Your task to perform on an android device: Go to wifi settings Image 0: 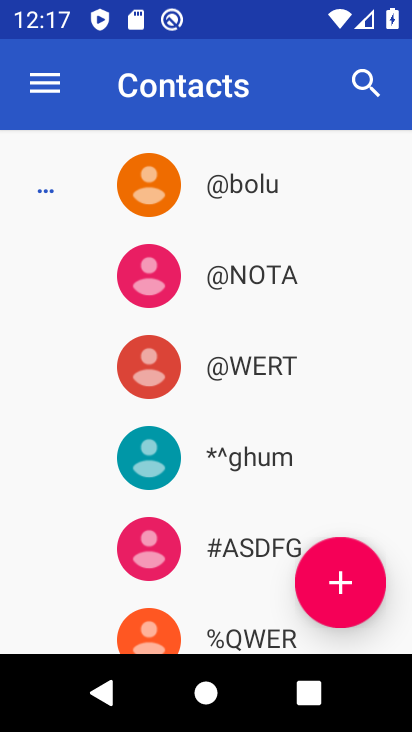
Step 0: press home button
Your task to perform on an android device: Go to wifi settings Image 1: 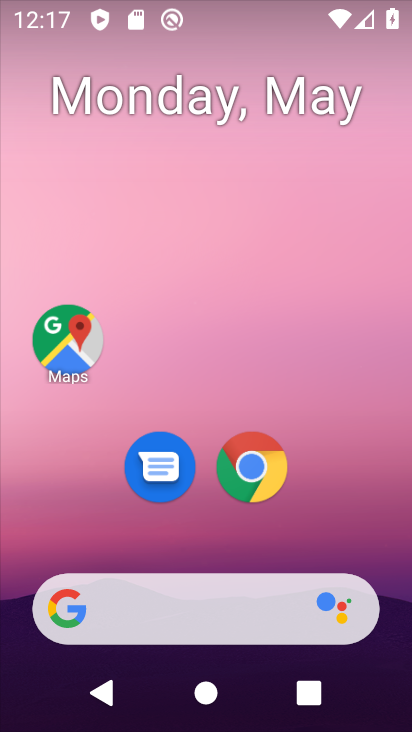
Step 1: drag from (316, 6) to (144, 359)
Your task to perform on an android device: Go to wifi settings Image 2: 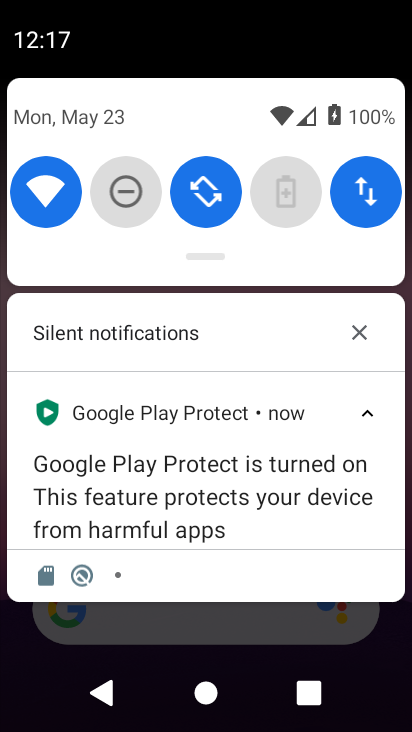
Step 2: drag from (217, 240) to (224, 346)
Your task to perform on an android device: Go to wifi settings Image 3: 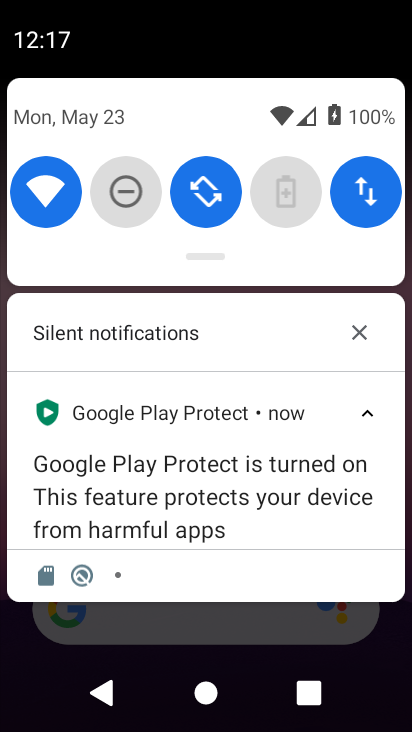
Step 3: drag from (185, 259) to (140, 342)
Your task to perform on an android device: Go to wifi settings Image 4: 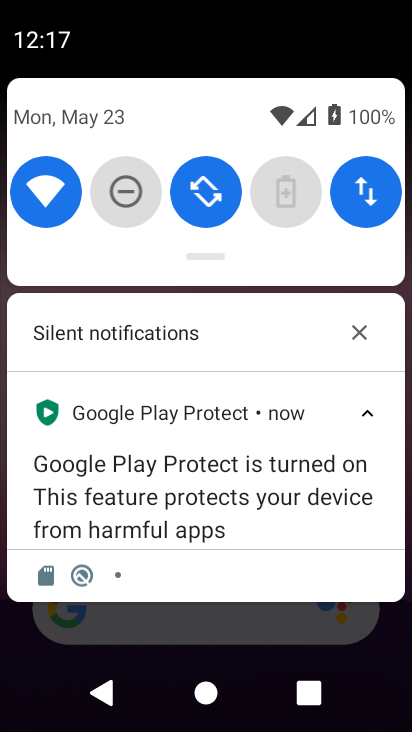
Step 4: click (50, 204)
Your task to perform on an android device: Go to wifi settings Image 5: 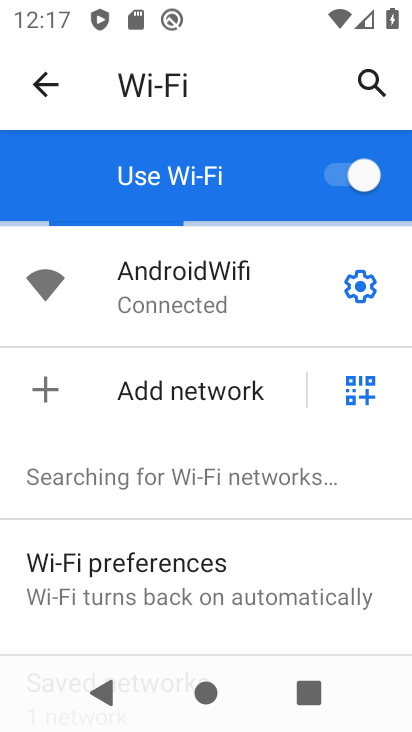
Step 5: task complete